Your task to perform on an android device: Open my contact list Image 0: 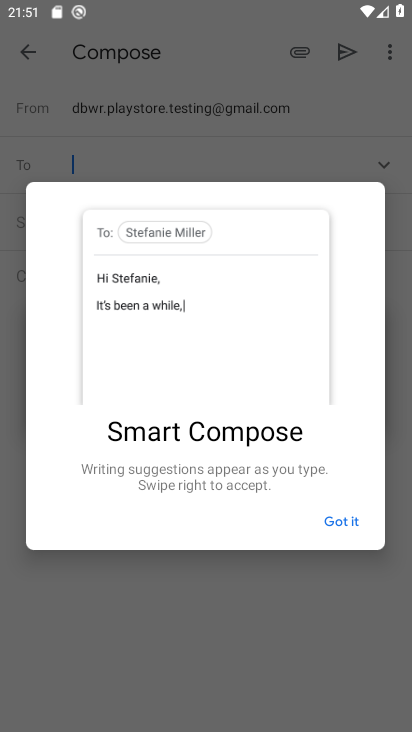
Step 0: press home button
Your task to perform on an android device: Open my contact list Image 1: 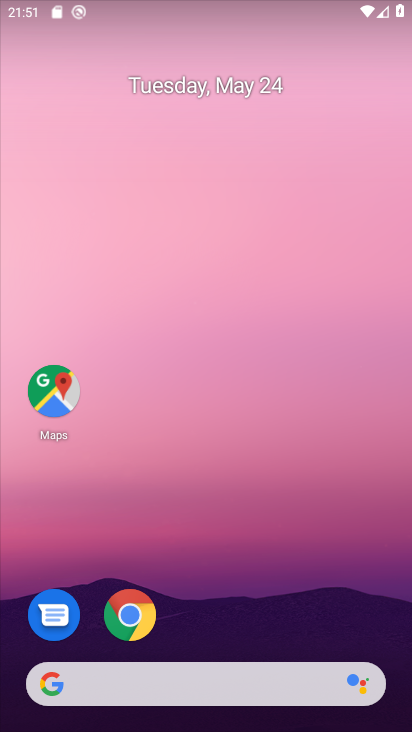
Step 1: drag from (139, 560) to (183, 167)
Your task to perform on an android device: Open my contact list Image 2: 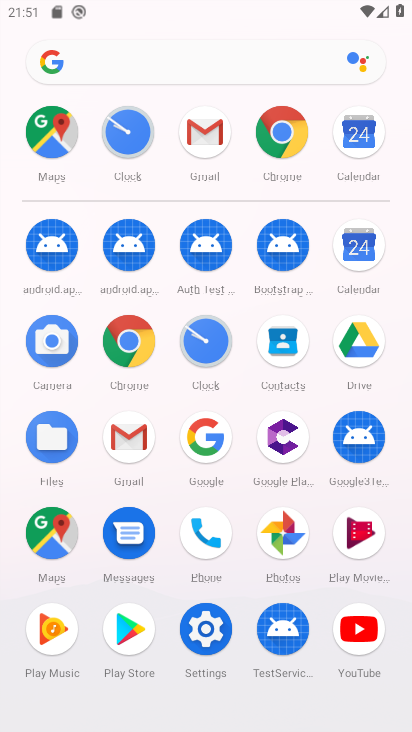
Step 2: click (207, 538)
Your task to perform on an android device: Open my contact list Image 3: 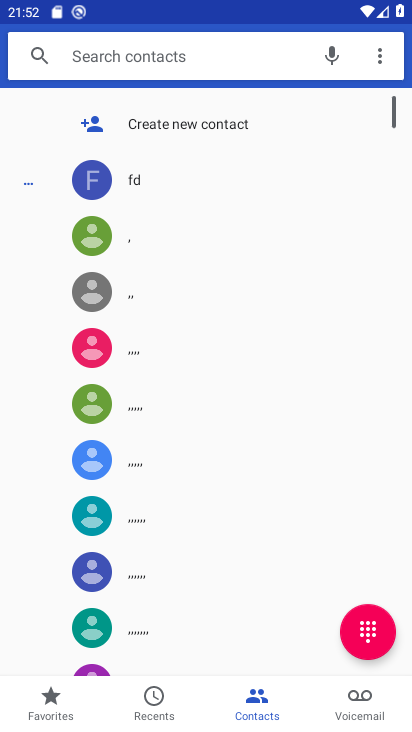
Step 3: task complete